Your task to perform on an android device: Do I have any events this weekend? Image 0: 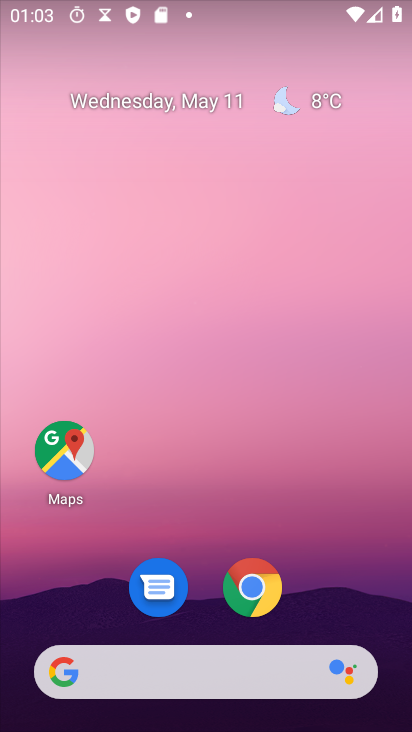
Step 0: drag from (323, 658) to (247, 334)
Your task to perform on an android device: Do I have any events this weekend? Image 1: 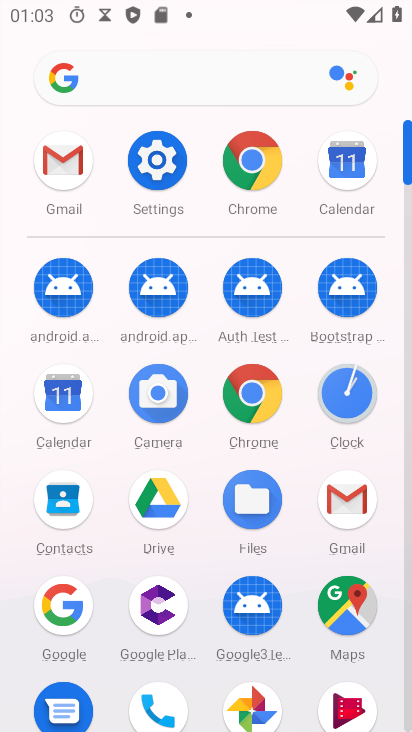
Step 1: click (53, 376)
Your task to perform on an android device: Do I have any events this weekend? Image 2: 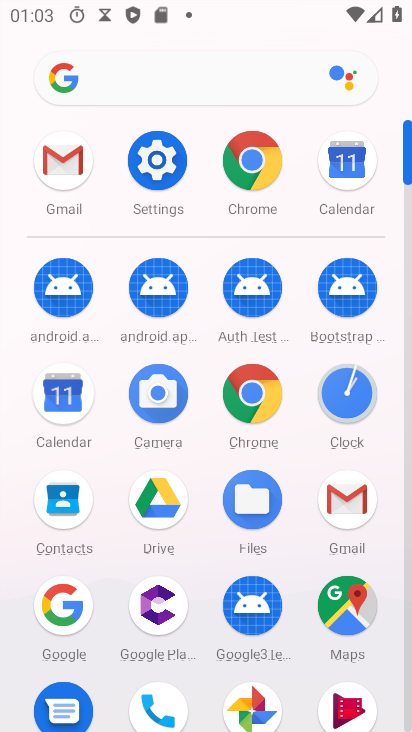
Step 2: click (63, 398)
Your task to perform on an android device: Do I have any events this weekend? Image 3: 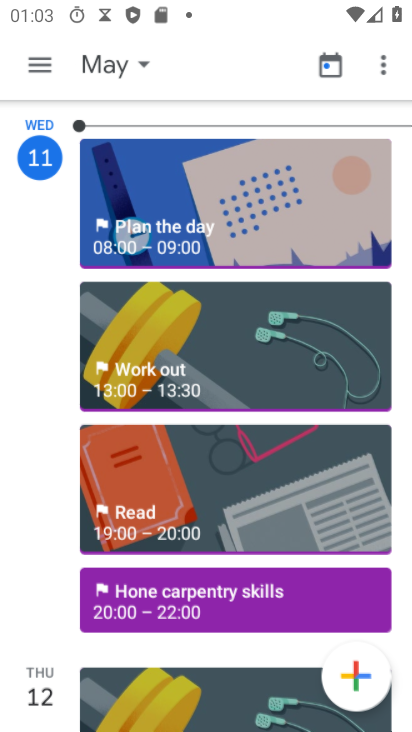
Step 3: click (63, 398)
Your task to perform on an android device: Do I have any events this weekend? Image 4: 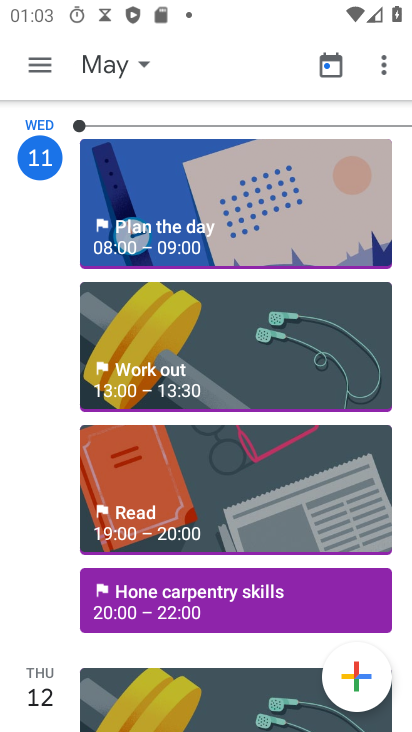
Step 4: drag from (214, 562) to (214, 184)
Your task to perform on an android device: Do I have any events this weekend? Image 5: 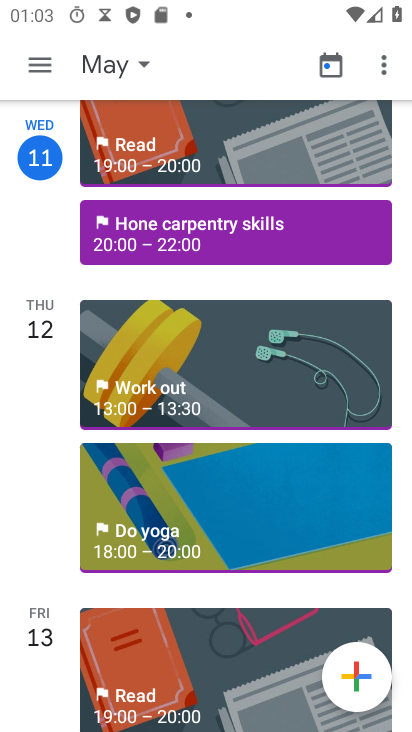
Step 5: drag from (193, 559) to (221, 106)
Your task to perform on an android device: Do I have any events this weekend? Image 6: 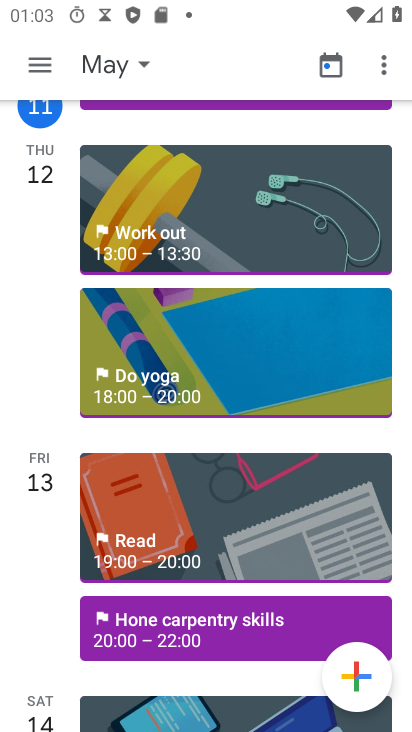
Step 6: drag from (240, 433) to (263, 232)
Your task to perform on an android device: Do I have any events this weekend? Image 7: 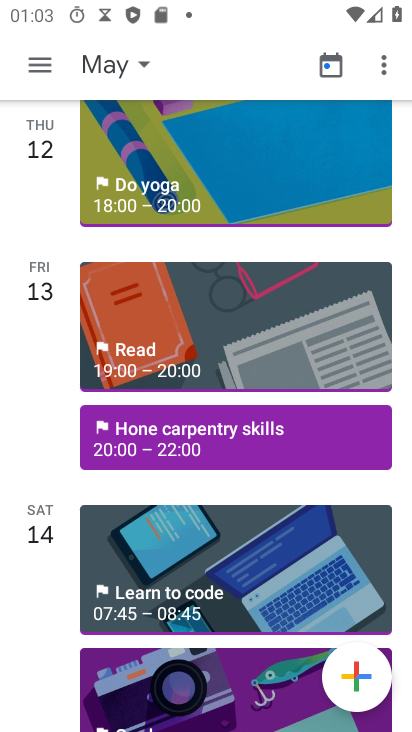
Step 7: click (139, 341)
Your task to perform on an android device: Do I have any events this weekend? Image 8: 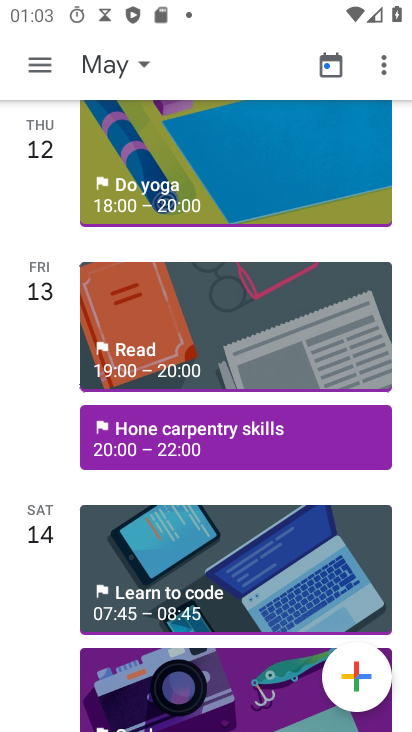
Step 8: click (138, 342)
Your task to perform on an android device: Do I have any events this weekend? Image 9: 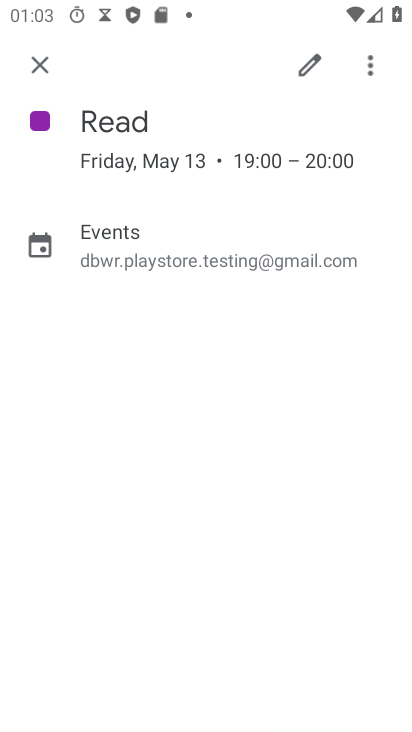
Step 9: click (138, 342)
Your task to perform on an android device: Do I have any events this weekend? Image 10: 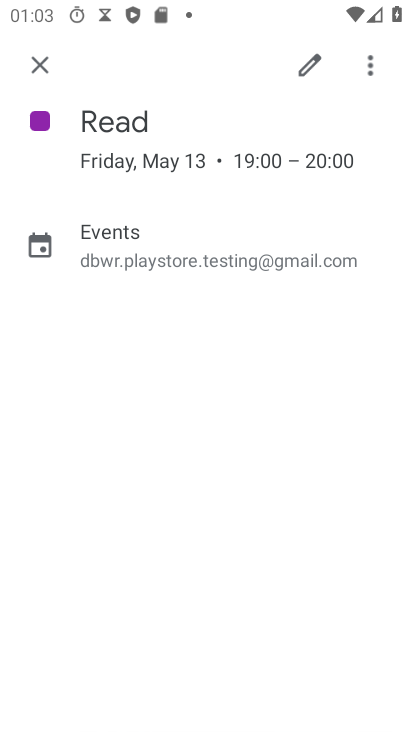
Step 10: task complete